Your task to perform on an android device: check google app version Image 0: 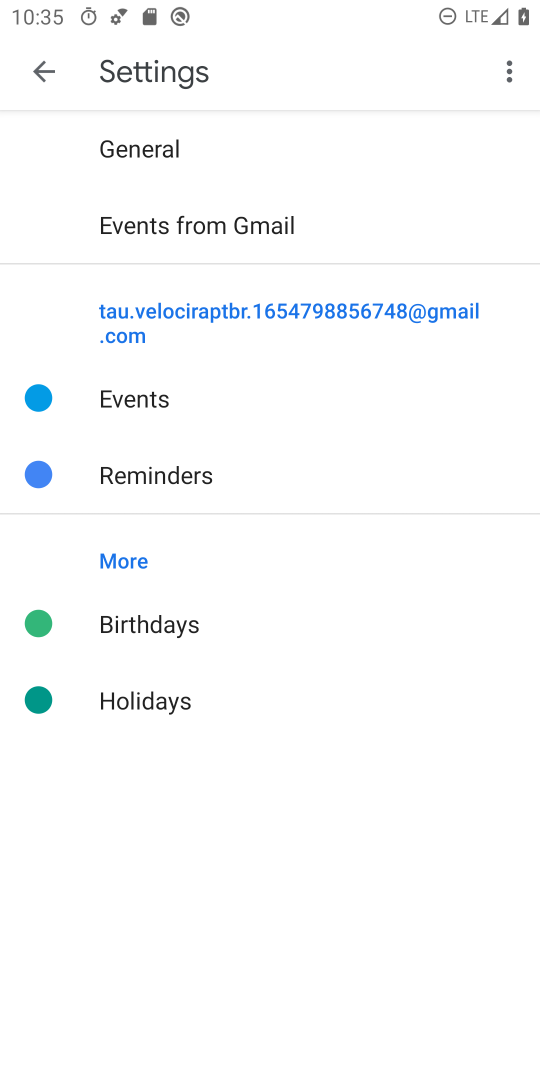
Step 0: press home button
Your task to perform on an android device: check google app version Image 1: 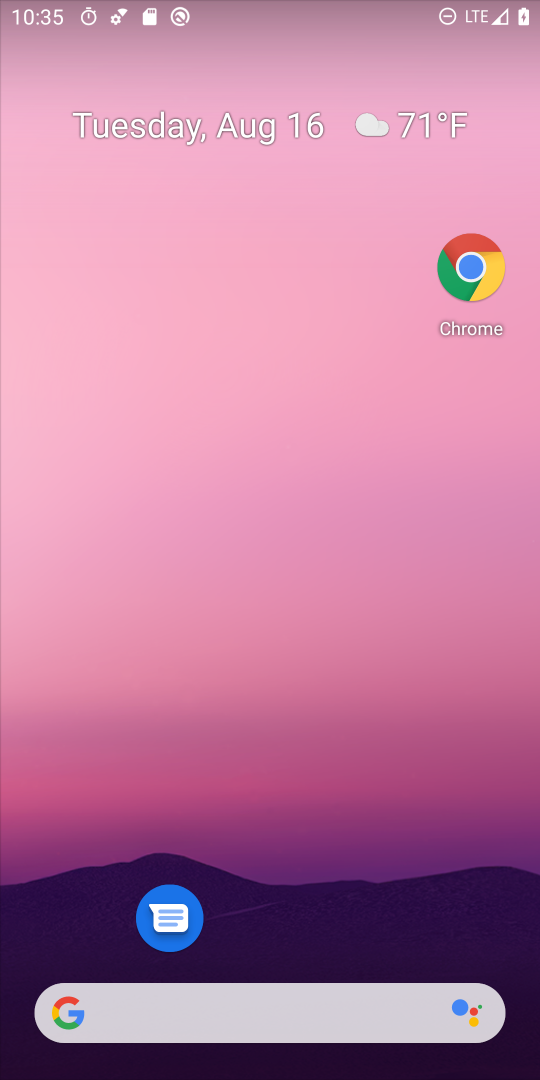
Step 1: drag from (374, 960) to (340, 348)
Your task to perform on an android device: check google app version Image 2: 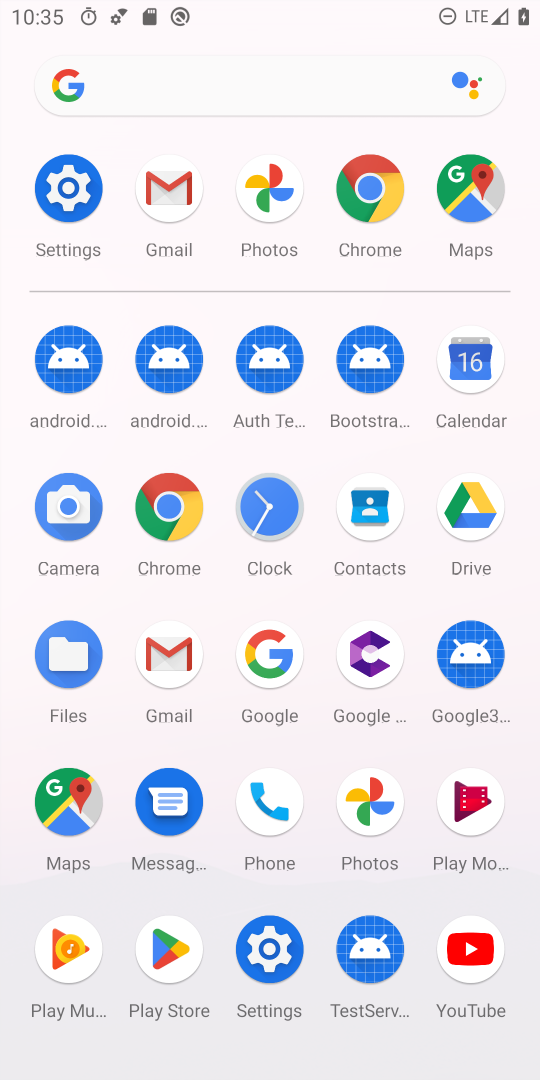
Step 2: click (260, 688)
Your task to perform on an android device: check google app version Image 3: 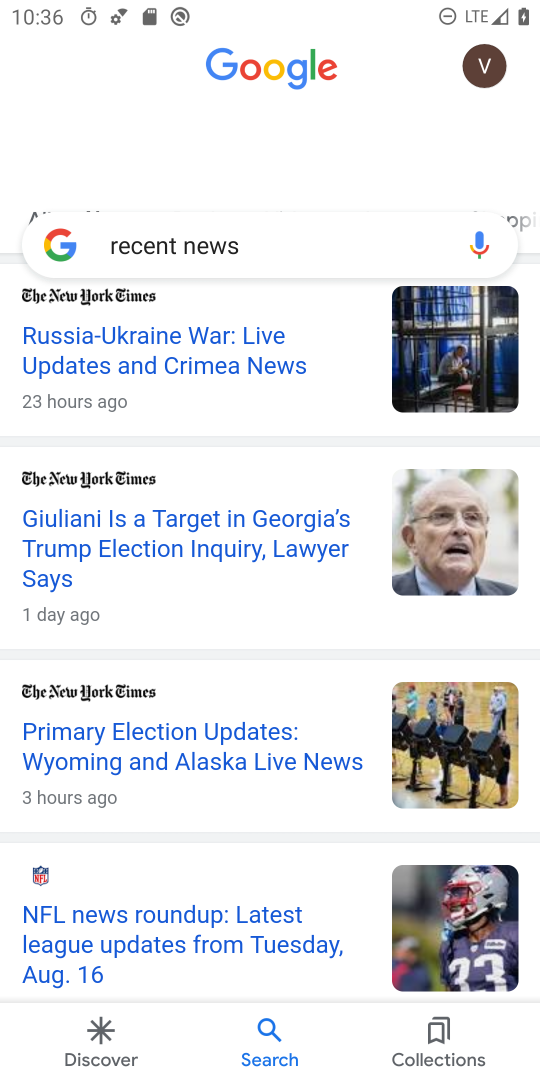
Step 3: click (478, 78)
Your task to perform on an android device: check google app version Image 4: 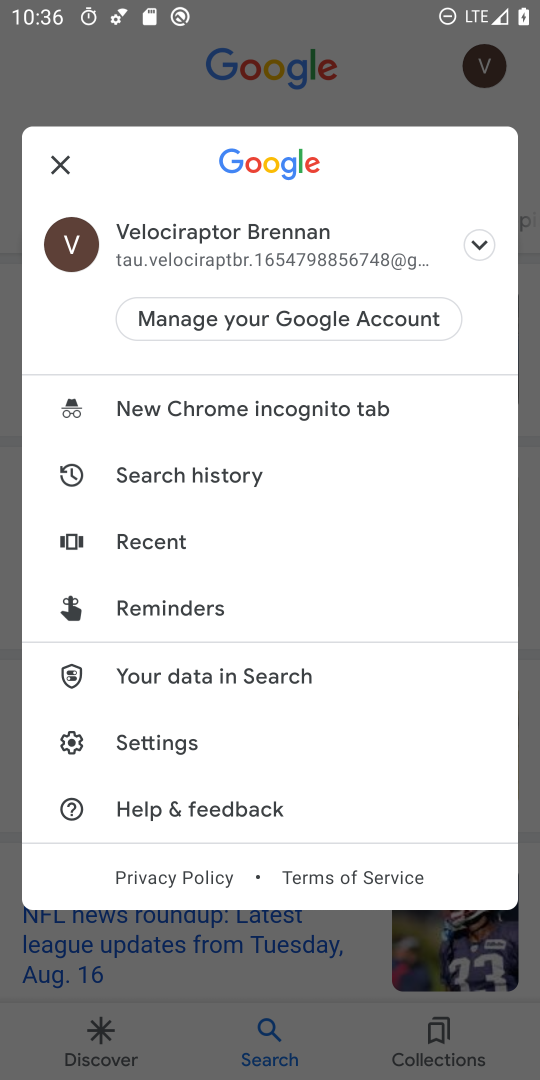
Step 4: click (132, 745)
Your task to perform on an android device: check google app version Image 5: 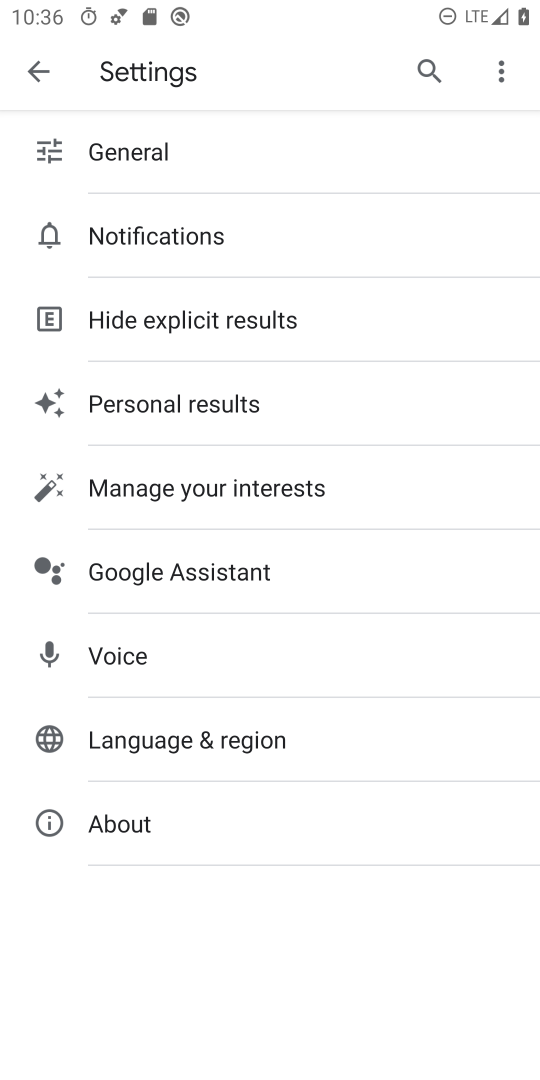
Step 5: task complete